Your task to perform on an android device: Open the Play Movies app and select the watchlist tab. Image 0: 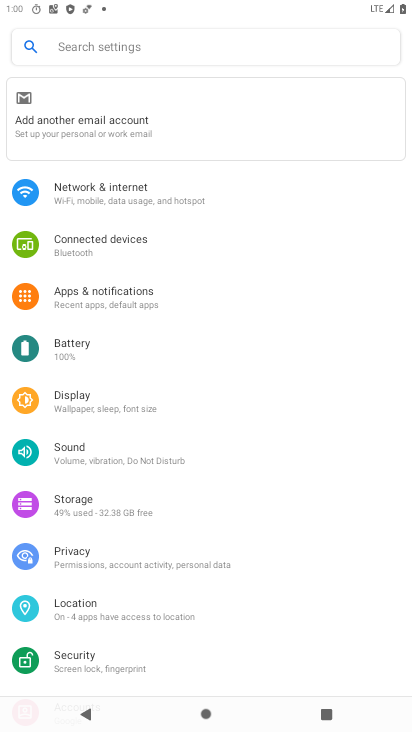
Step 0: press home button
Your task to perform on an android device: Open the Play Movies app and select the watchlist tab. Image 1: 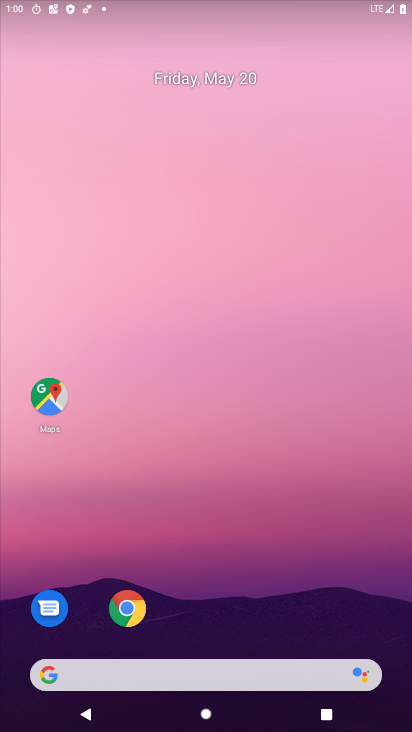
Step 1: drag from (392, 624) to (367, 102)
Your task to perform on an android device: Open the Play Movies app and select the watchlist tab. Image 2: 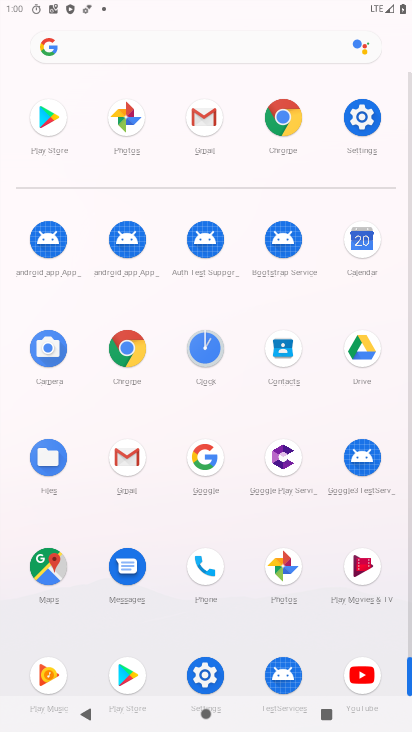
Step 2: click (366, 569)
Your task to perform on an android device: Open the Play Movies app and select the watchlist tab. Image 3: 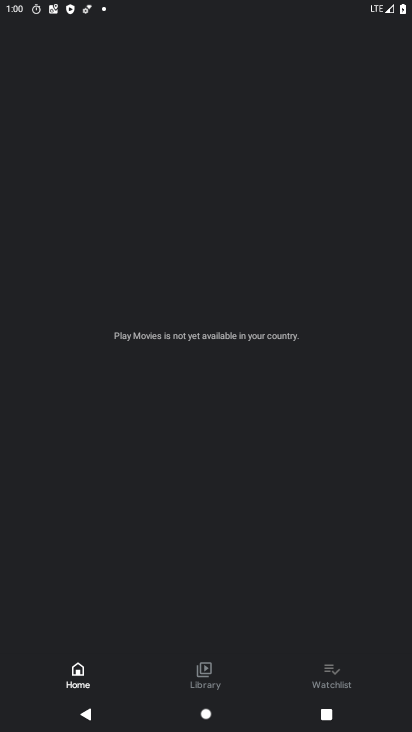
Step 3: press home button
Your task to perform on an android device: Open the Play Movies app and select the watchlist tab. Image 4: 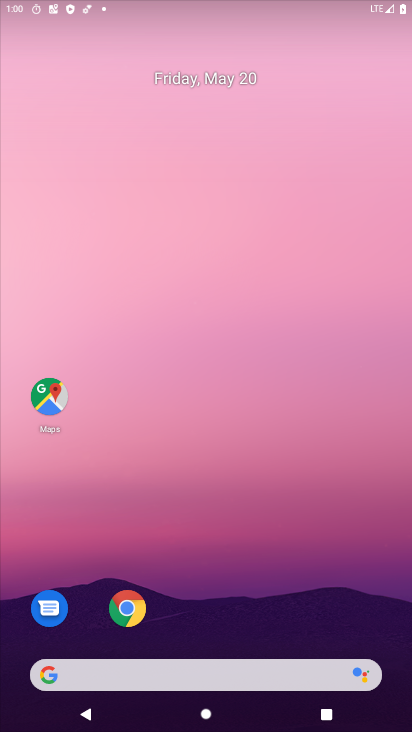
Step 4: drag from (352, 584) to (310, 176)
Your task to perform on an android device: Open the Play Movies app and select the watchlist tab. Image 5: 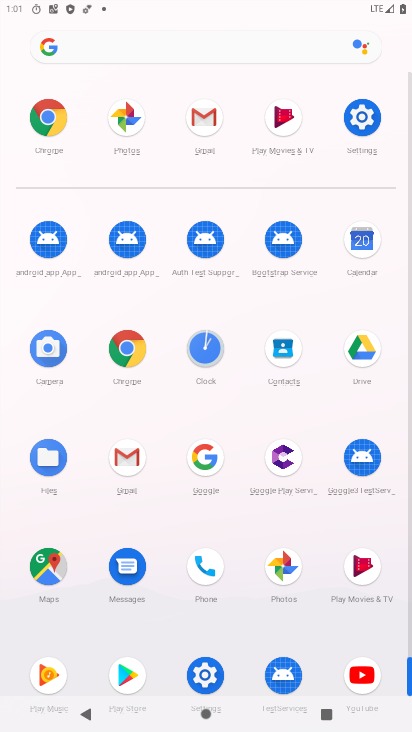
Step 5: click (353, 572)
Your task to perform on an android device: Open the Play Movies app and select the watchlist tab. Image 6: 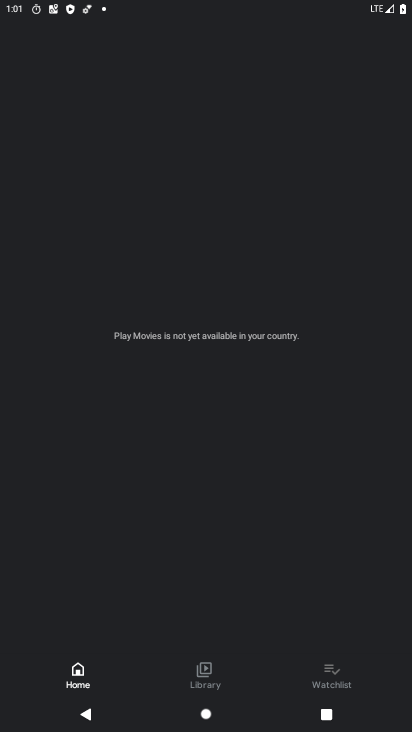
Step 6: click (340, 682)
Your task to perform on an android device: Open the Play Movies app and select the watchlist tab. Image 7: 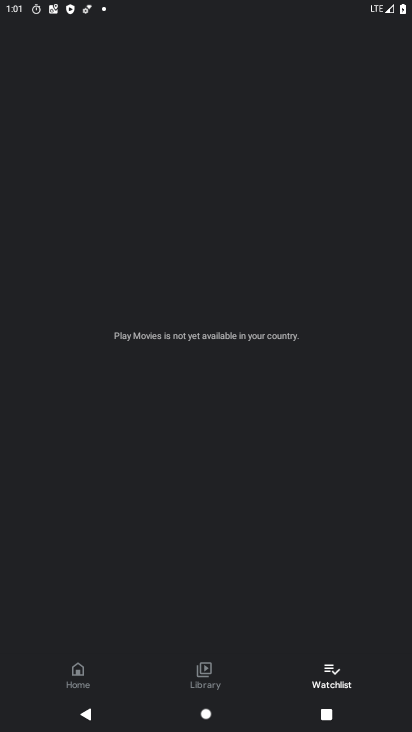
Step 7: task complete